Your task to perform on an android device: Open sound settings Image 0: 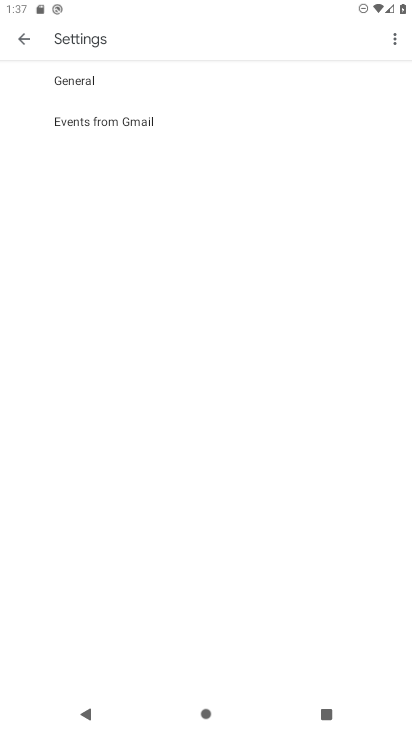
Step 0: press home button
Your task to perform on an android device: Open sound settings Image 1: 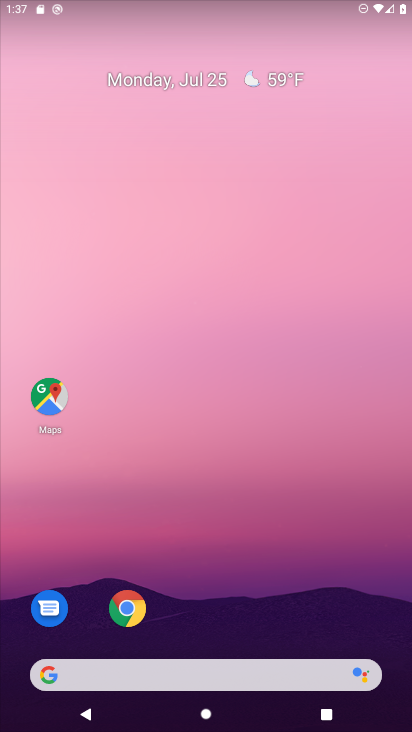
Step 1: drag from (396, 607) to (371, 201)
Your task to perform on an android device: Open sound settings Image 2: 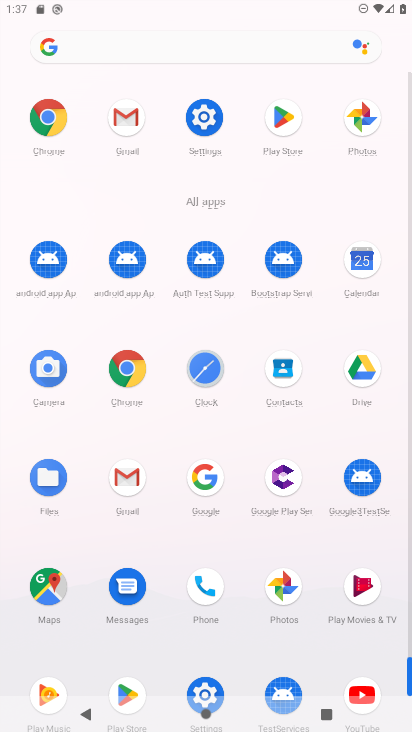
Step 2: drag from (208, 690) to (206, 534)
Your task to perform on an android device: Open sound settings Image 3: 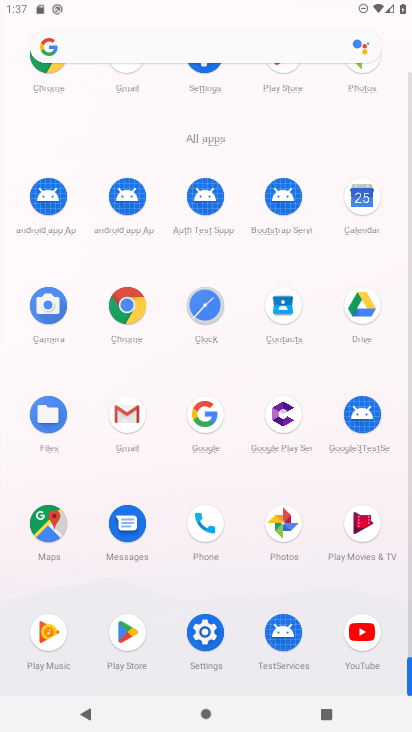
Step 3: click (205, 630)
Your task to perform on an android device: Open sound settings Image 4: 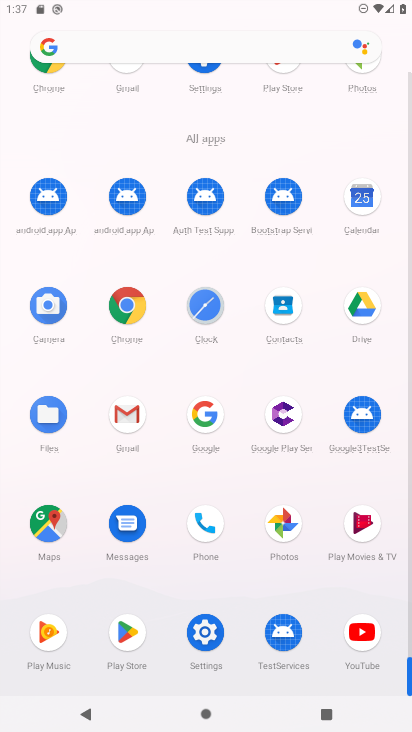
Step 4: click (205, 630)
Your task to perform on an android device: Open sound settings Image 5: 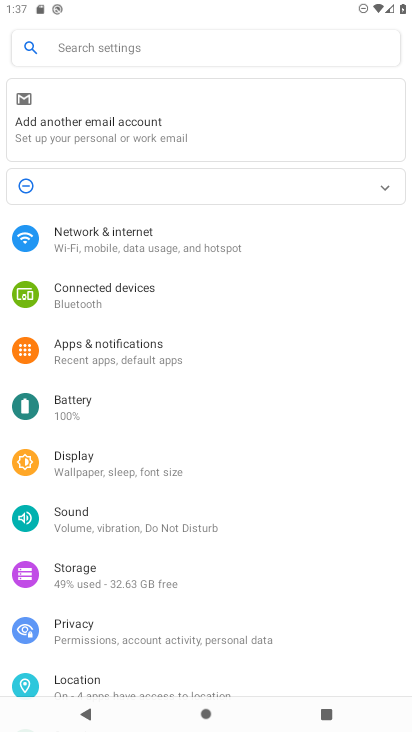
Step 5: click (100, 520)
Your task to perform on an android device: Open sound settings Image 6: 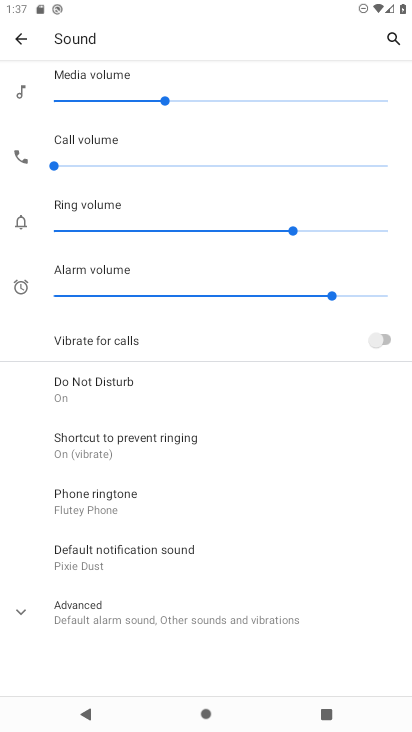
Step 6: click (18, 613)
Your task to perform on an android device: Open sound settings Image 7: 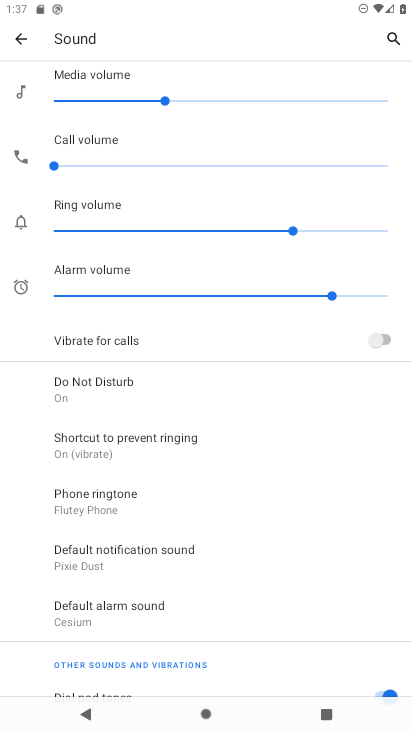
Step 7: task complete